Your task to perform on an android device: Open the calendar and show me this week's events? Image 0: 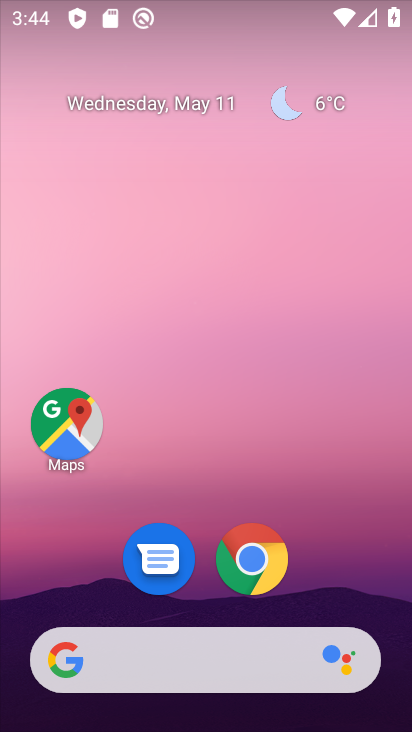
Step 0: drag from (353, 572) to (288, 123)
Your task to perform on an android device: Open the calendar and show me this week's events? Image 1: 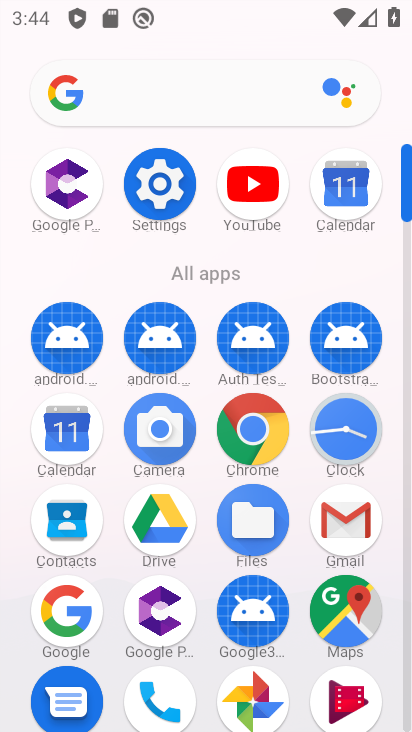
Step 1: click (53, 445)
Your task to perform on an android device: Open the calendar and show me this week's events? Image 2: 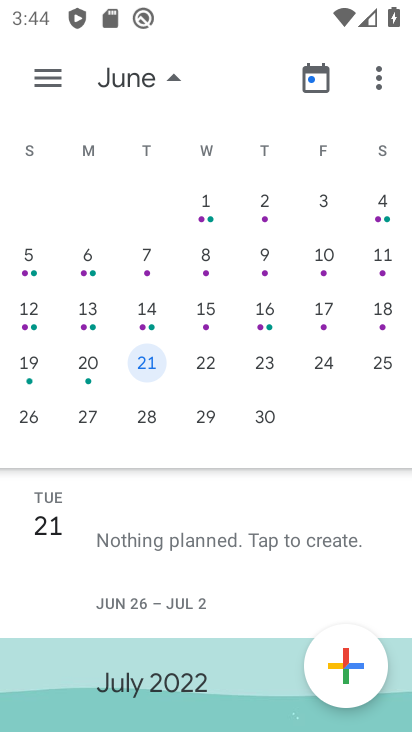
Step 2: click (337, 360)
Your task to perform on an android device: Open the calendar and show me this week's events? Image 3: 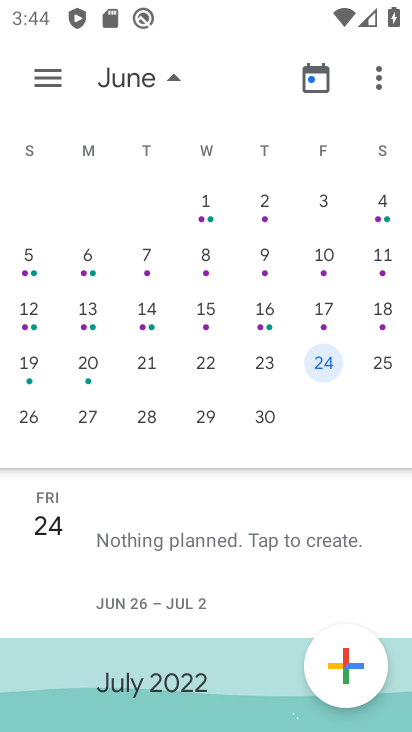
Step 3: task complete